Your task to perform on an android device: Open CNN.com Image 0: 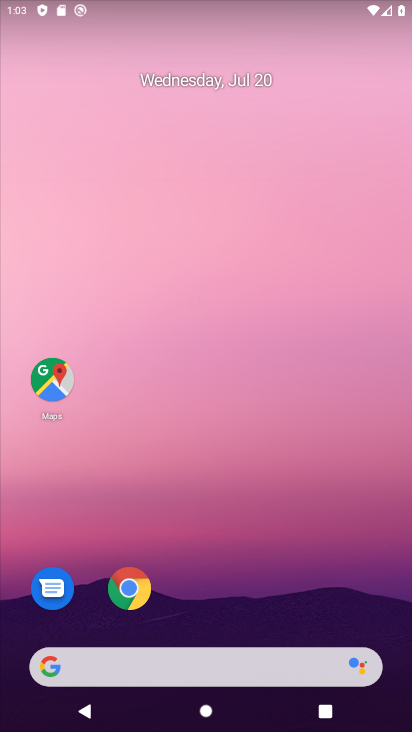
Step 0: drag from (309, 616) to (216, 156)
Your task to perform on an android device: Open CNN.com Image 1: 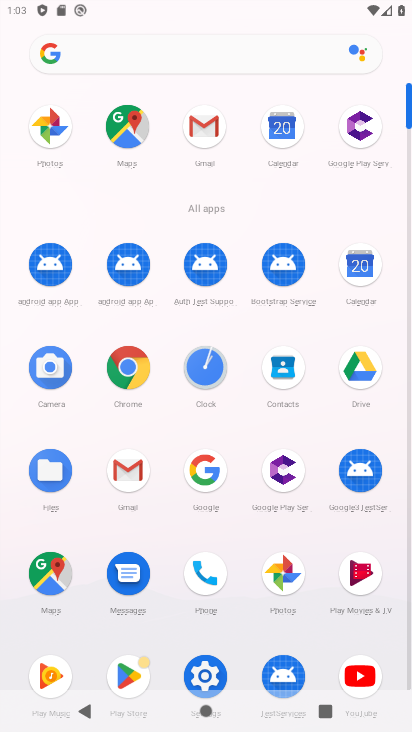
Step 1: click (128, 370)
Your task to perform on an android device: Open CNN.com Image 2: 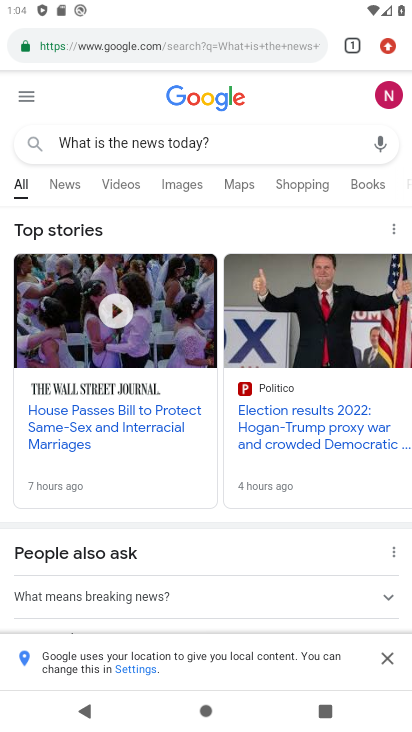
Step 2: click (234, 56)
Your task to perform on an android device: Open CNN.com Image 3: 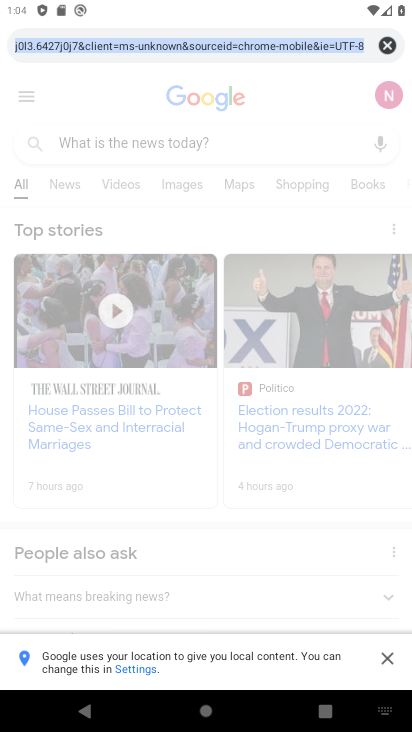
Step 3: type "cnn.com"
Your task to perform on an android device: Open CNN.com Image 4: 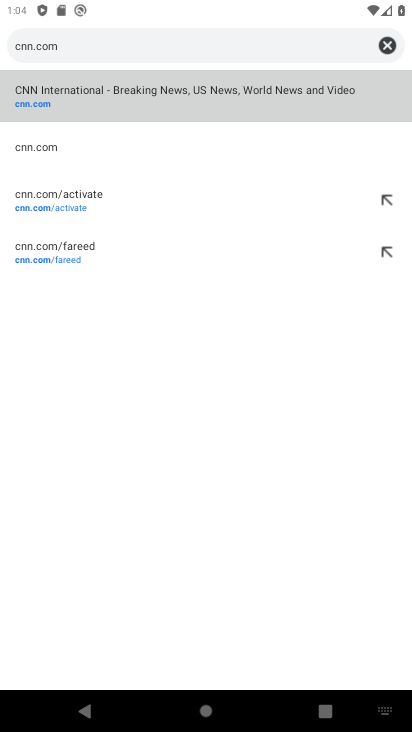
Step 4: click (244, 91)
Your task to perform on an android device: Open CNN.com Image 5: 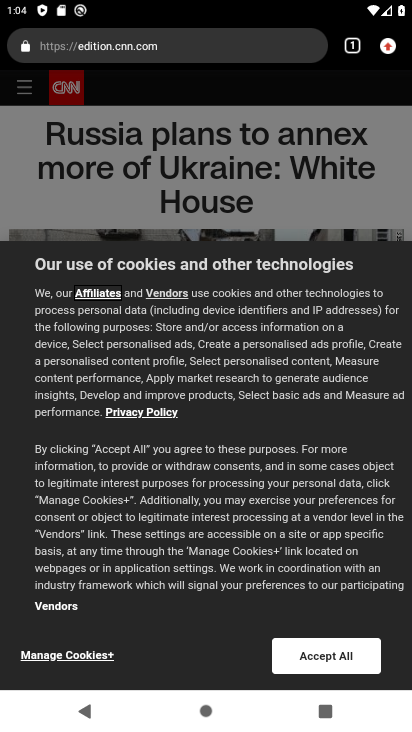
Step 5: task complete